Your task to perform on an android device: turn off location Image 0: 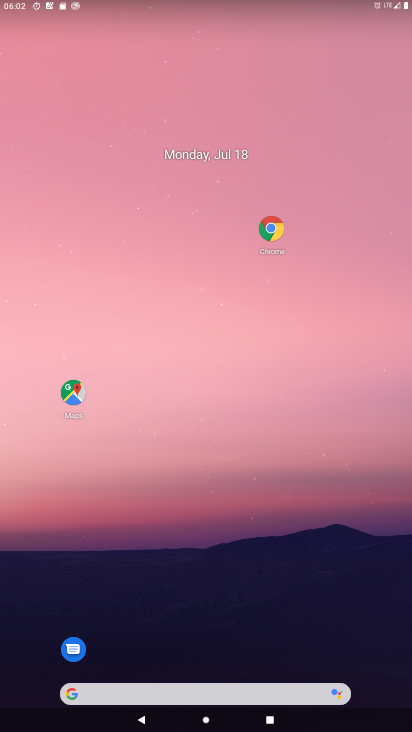
Step 0: drag from (160, 502) to (129, 22)
Your task to perform on an android device: turn off location Image 1: 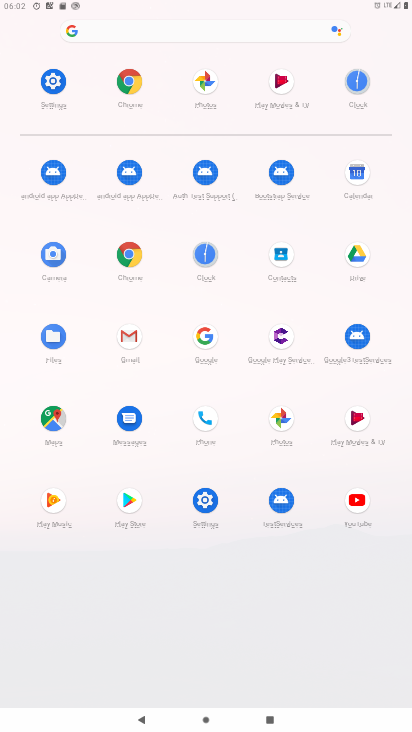
Step 1: click (215, 507)
Your task to perform on an android device: turn off location Image 2: 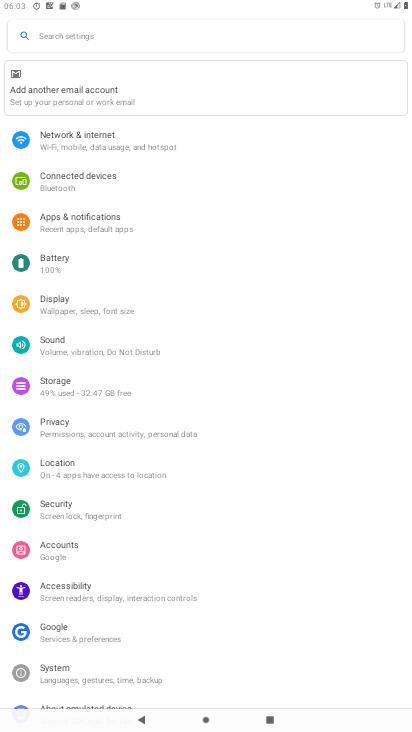
Step 2: click (89, 459)
Your task to perform on an android device: turn off location Image 3: 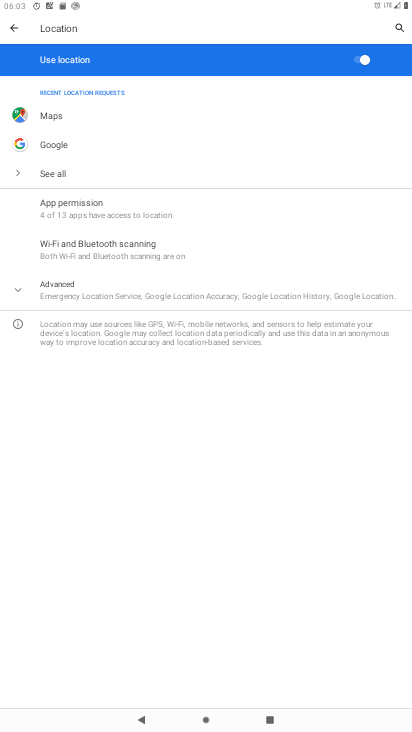
Step 3: click (366, 57)
Your task to perform on an android device: turn off location Image 4: 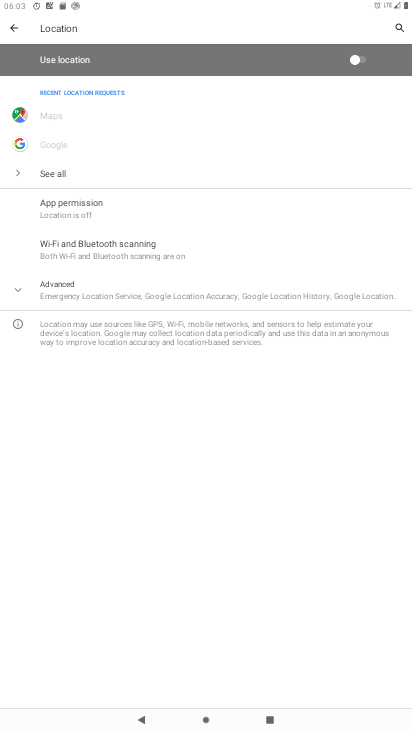
Step 4: task complete